Your task to perform on an android device: Open privacy settings Image 0: 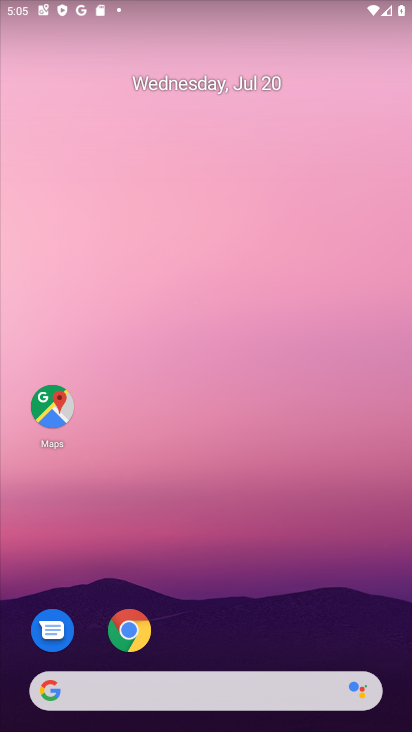
Step 0: press home button
Your task to perform on an android device: Open privacy settings Image 1: 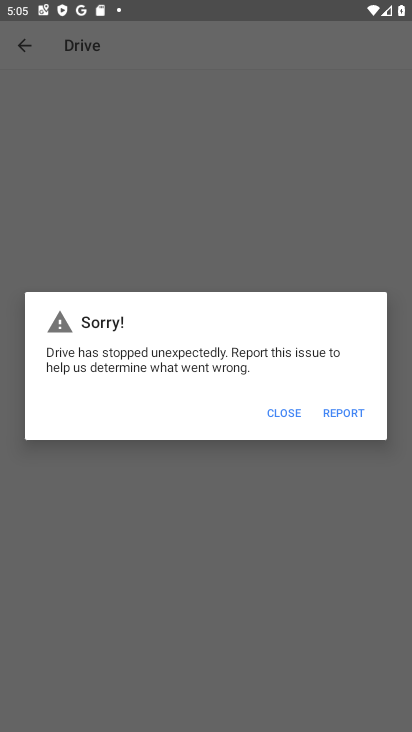
Step 1: click (140, 381)
Your task to perform on an android device: Open privacy settings Image 2: 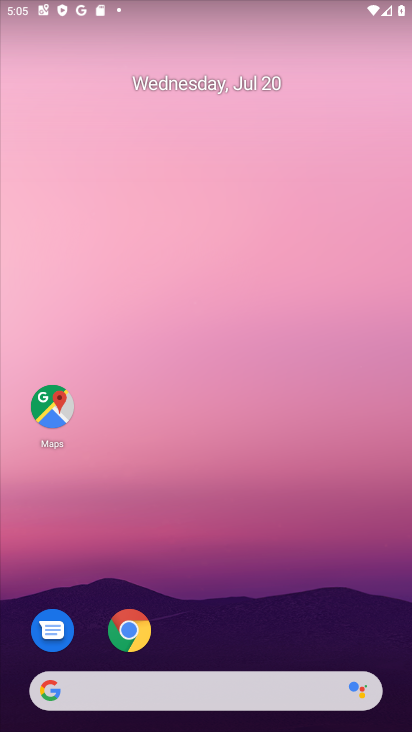
Step 2: drag from (212, 687) to (156, 43)
Your task to perform on an android device: Open privacy settings Image 3: 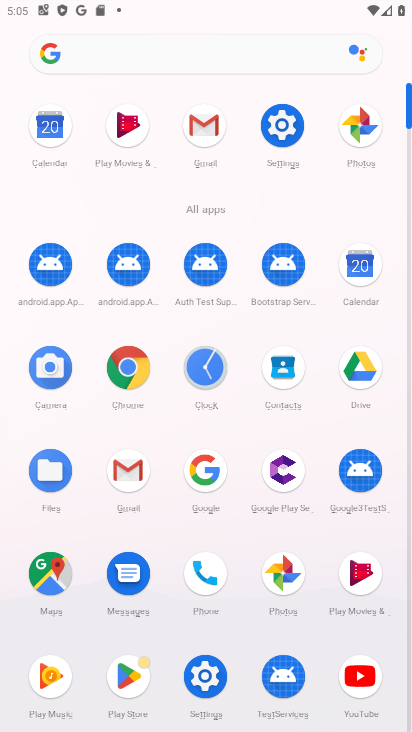
Step 3: click (283, 125)
Your task to perform on an android device: Open privacy settings Image 4: 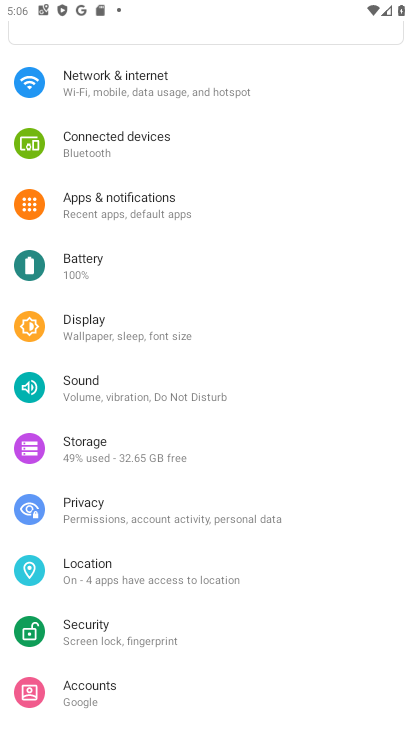
Step 4: click (88, 508)
Your task to perform on an android device: Open privacy settings Image 5: 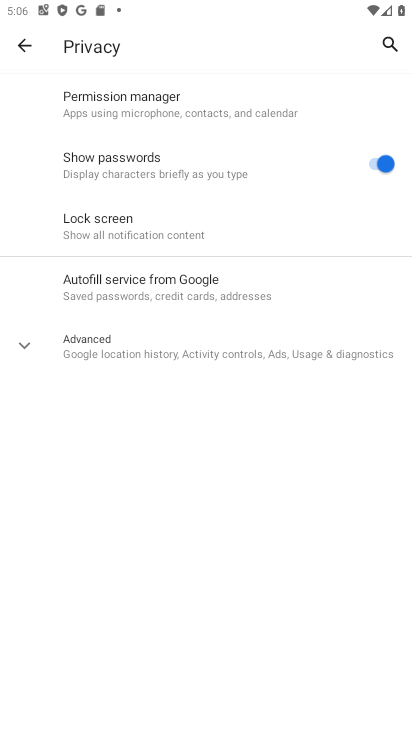
Step 5: task complete